Your task to perform on an android device: Open Android settings Image 0: 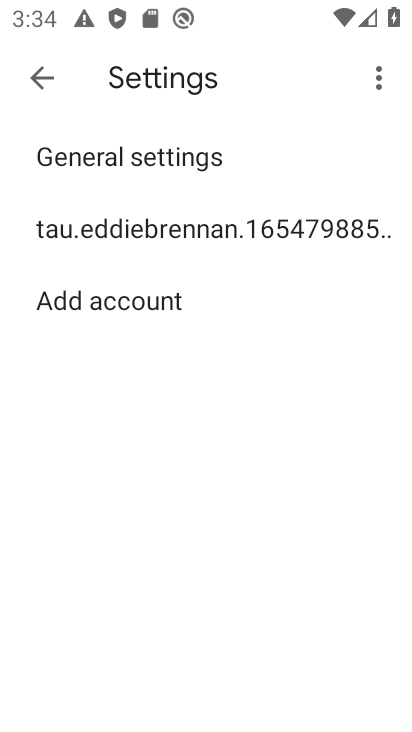
Step 0: click (42, 67)
Your task to perform on an android device: Open Android settings Image 1: 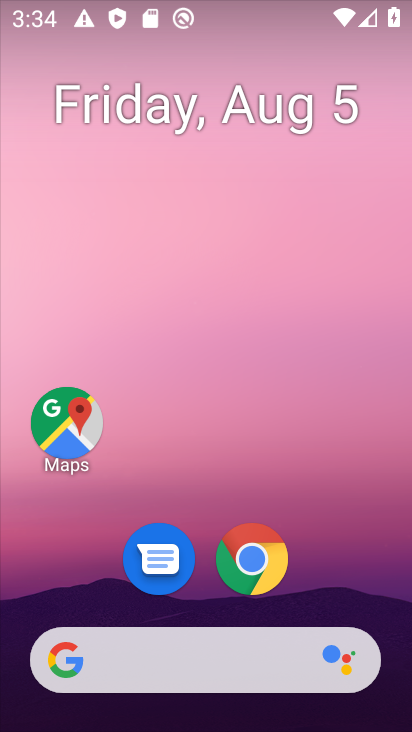
Step 1: drag from (247, 575) to (169, 174)
Your task to perform on an android device: Open Android settings Image 2: 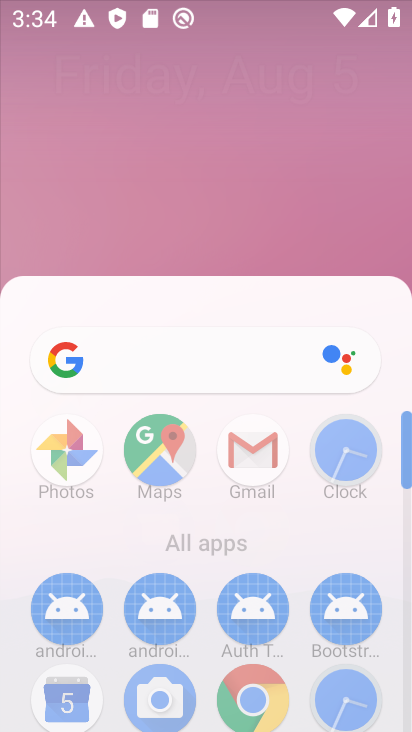
Step 2: drag from (194, 482) to (121, 25)
Your task to perform on an android device: Open Android settings Image 3: 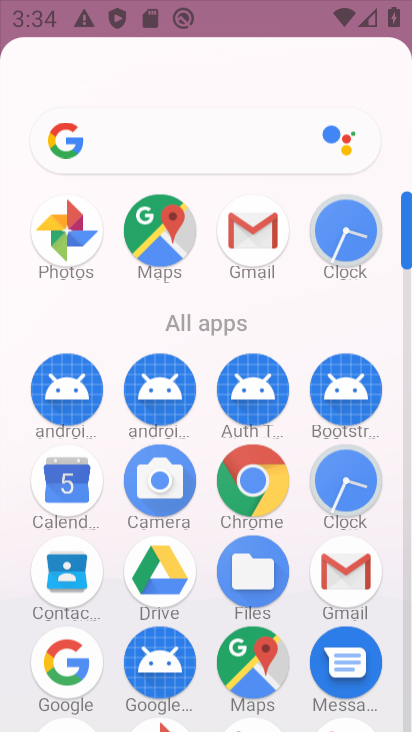
Step 3: drag from (225, 348) to (193, 186)
Your task to perform on an android device: Open Android settings Image 4: 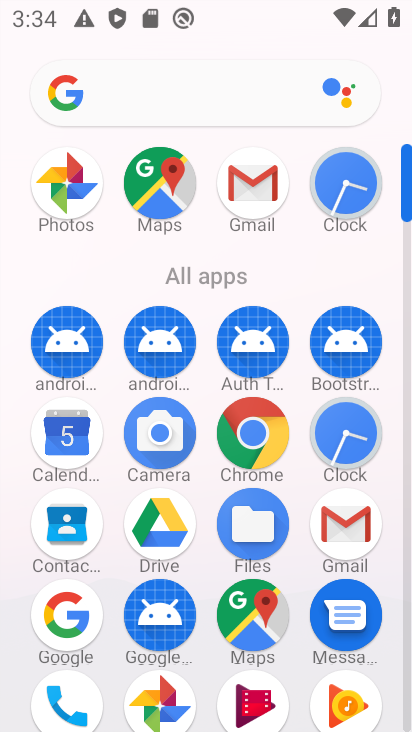
Step 4: drag from (203, 416) to (184, 168)
Your task to perform on an android device: Open Android settings Image 5: 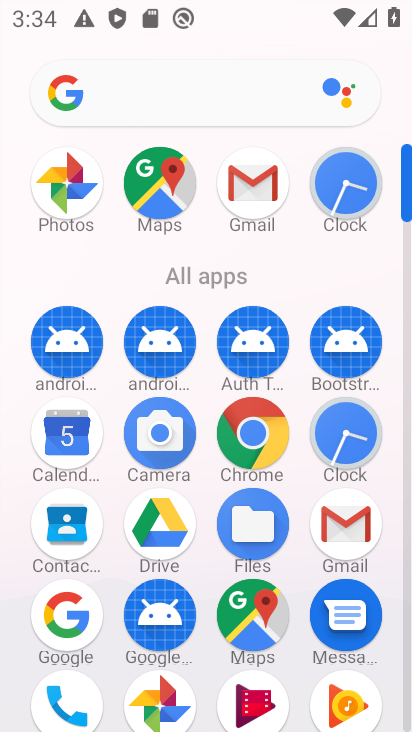
Step 5: drag from (207, 327) to (191, 174)
Your task to perform on an android device: Open Android settings Image 6: 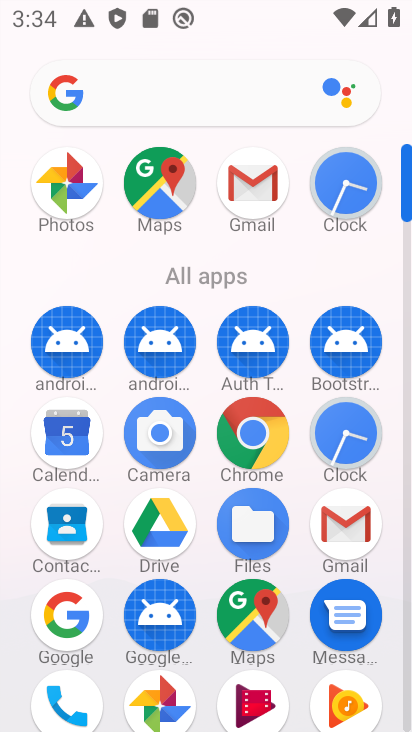
Step 6: drag from (183, 438) to (148, 205)
Your task to perform on an android device: Open Android settings Image 7: 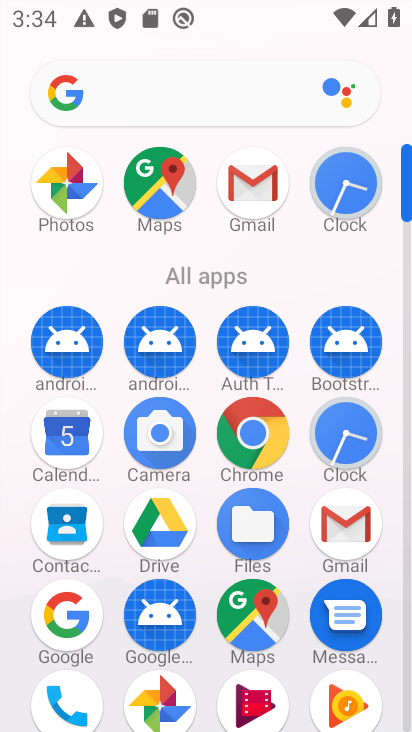
Step 7: drag from (225, 627) to (165, 251)
Your task to perform on an android device: Open Android settings Image 8: 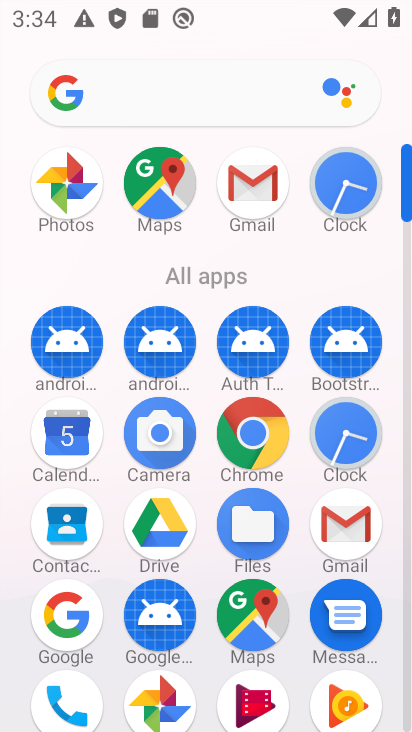
Step 8: drag from (201, 538) to (158, 191)
Your task to perform on an android device: Open Android settings Image 9: 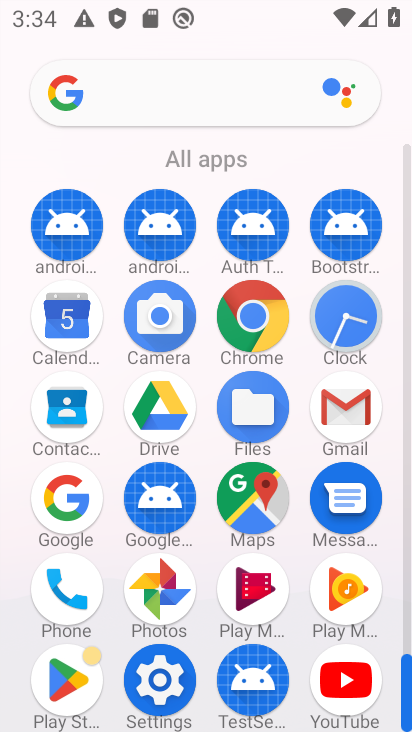
Step 9: drag from (219, 602) to (214, 244)
Your task to perform on an android device: Open Android settings Image 10: 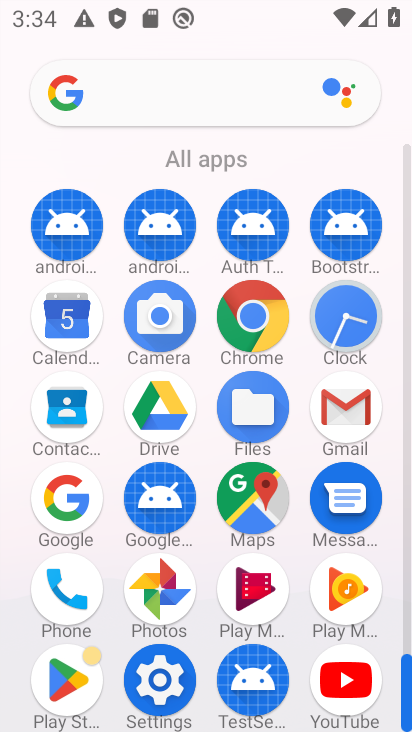
Step 10: click (162, 678)
Your task to perform on an android device: Open Android settings Image 11: 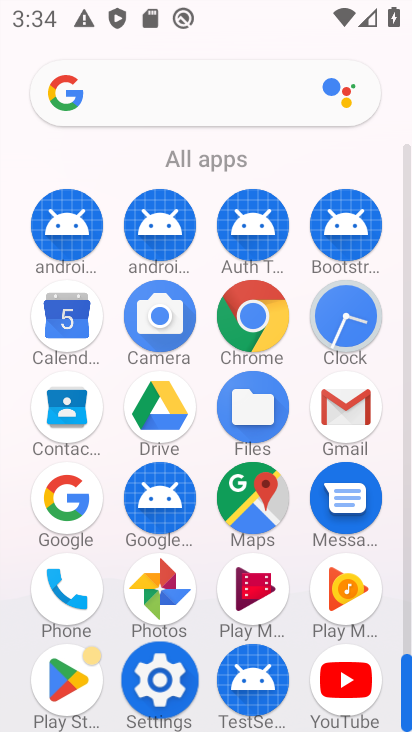
Step 11: click (162, 678)
Your task to perform on an android device: Open Android settings Image 12: 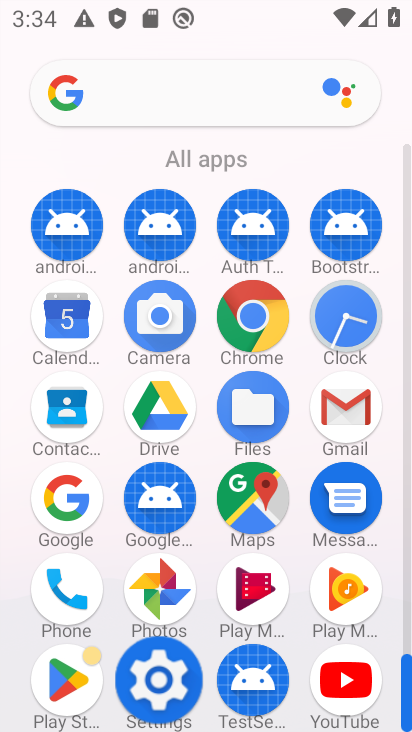
Step 12: click (170, 679)
Your task to perform on an android device: Open Android settings Image 13: 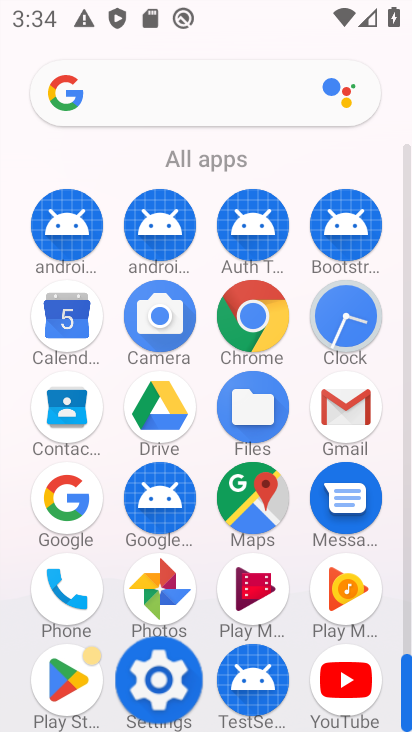
Step 13: click (170, 679)
Your task to perform on an android device: Open Android settings Image 14: 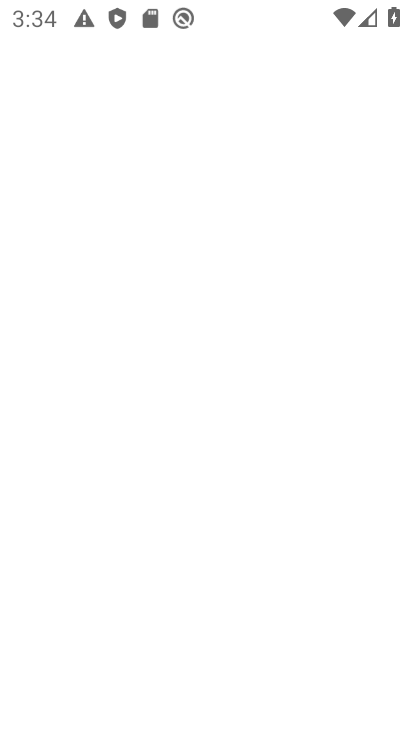
Step 14: click (167, 680)
Your task to perform on an android device: Open Android settings Image 15: 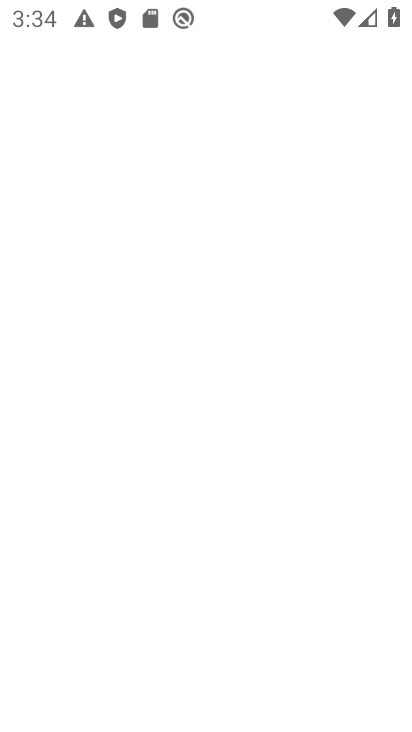
Step 15: click (157, 668)
Your task to perform on an android device: Open Android settings Image 16: 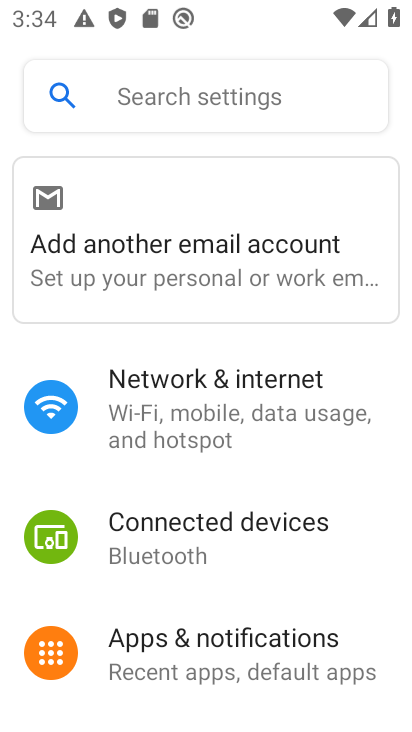
Step 16: drag from (188, 545) to (173, 296)
Your task to perform on an android device: Open Android settings Image 17: 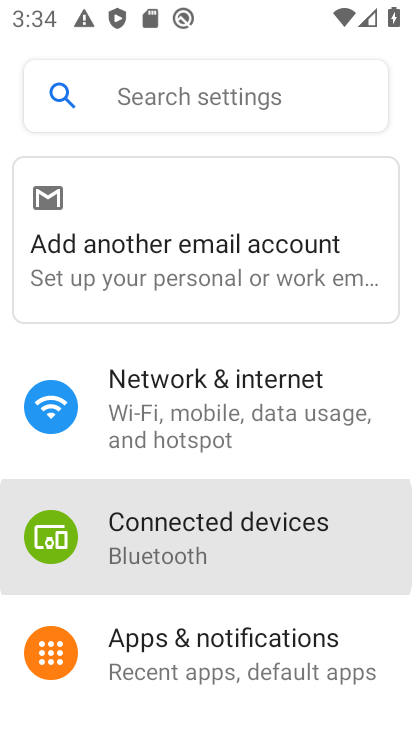
Step 17: drag from (221, 564) to (180, 351)
Your task to perform on an android device: Open Android settings Image 18: 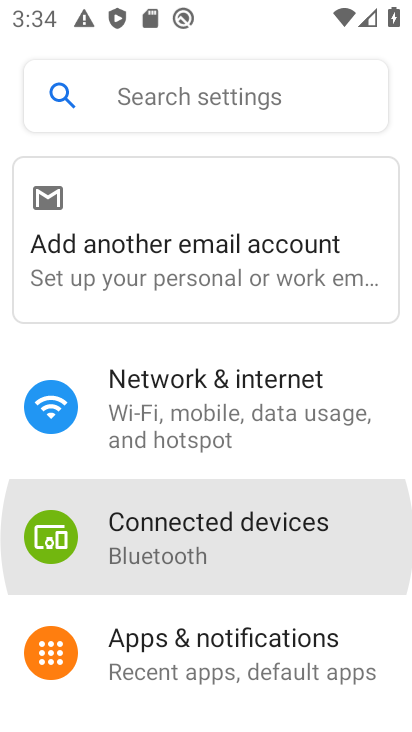
Step 18: drag from (200, 503) to (174, 272)
Your task to perform on an android device: Open Android settings Image 19: 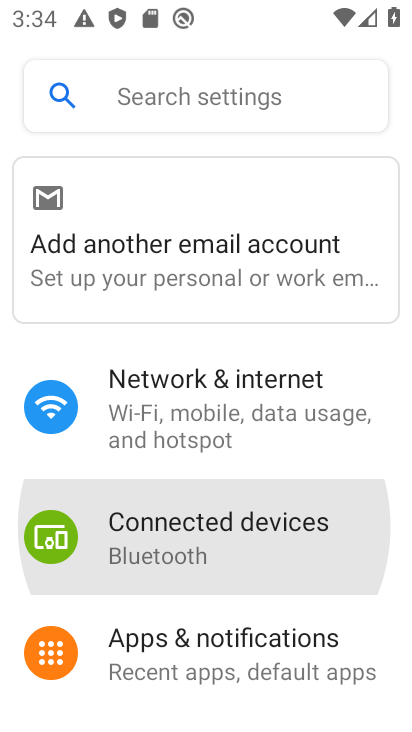
Step 19: drag from (165, 658) to (127, 411)
Your task to perform on an android device: Open Android settings Image 20: 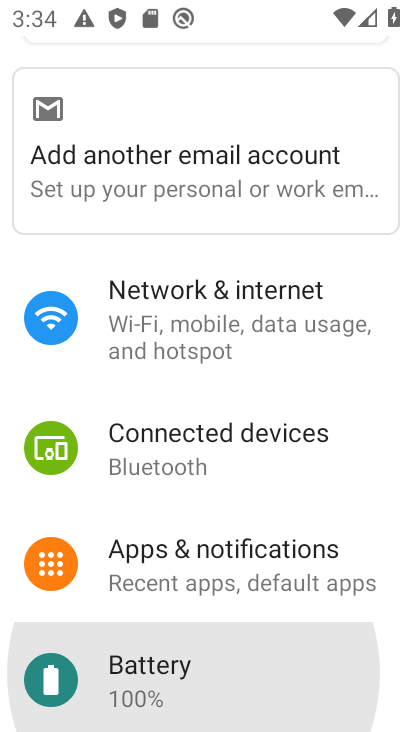
Step 20: drag from (171, 575) to (158, 351)
Your task to perform on an android device: Open Android settings Image 21: 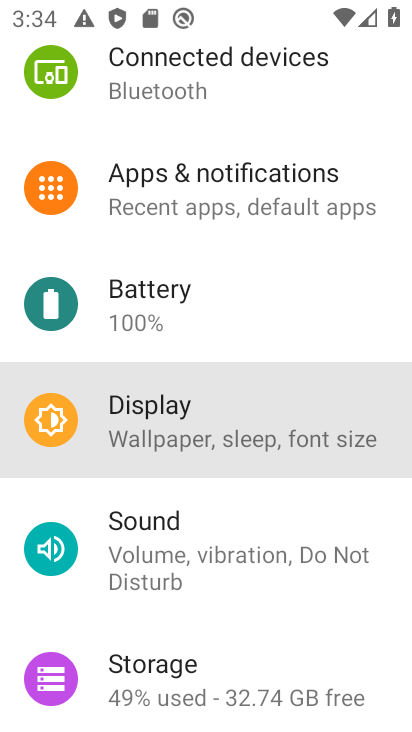
Step 21: drag from (191, 483) to (183, 336)
Your task to perform on an android device: Open Android settings Image 22: 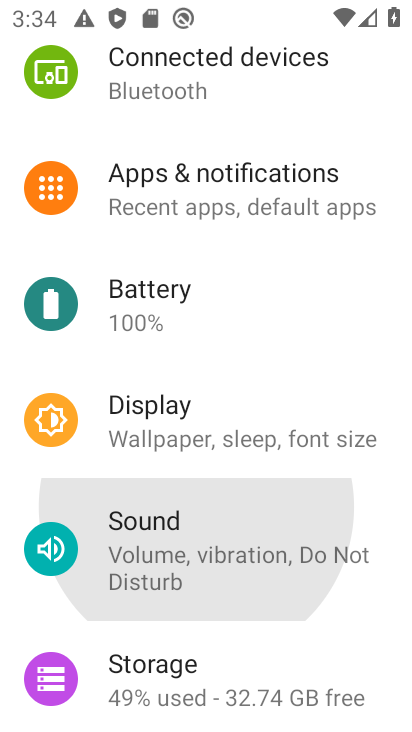
Step 22: drag from (147, 604) to (132, 285)
Your task to perform on an android device: Open Android settings Image 23: 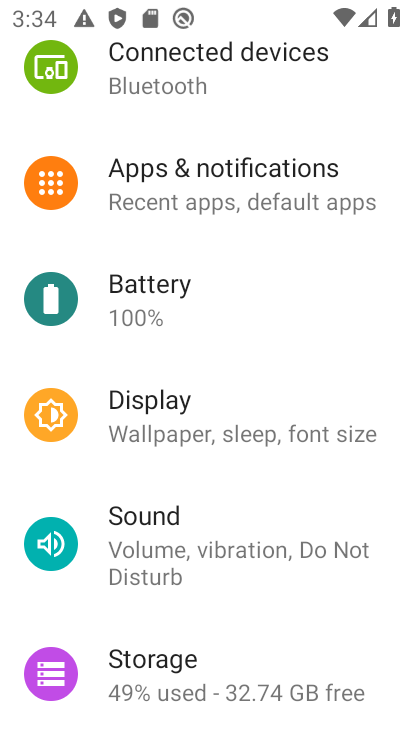
Step 23: drag from (179, 518) to (162, 236)
Your task to perform on an android device: Open Android settings Image 24: 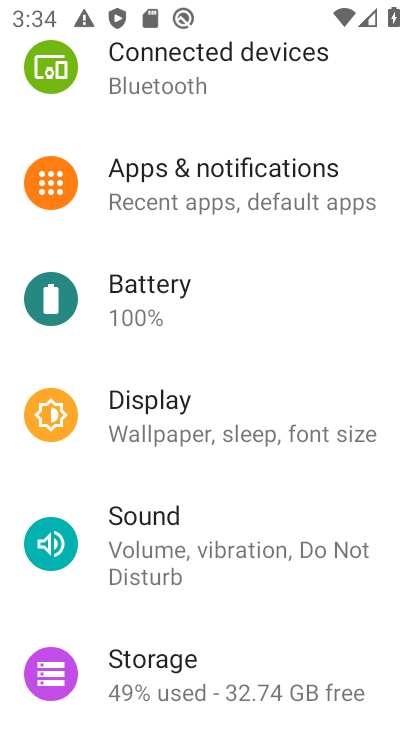
Step 24: drag from (221, 575) to (221, 342)
Your task to perform on an android device: Open Android settings Image 25: 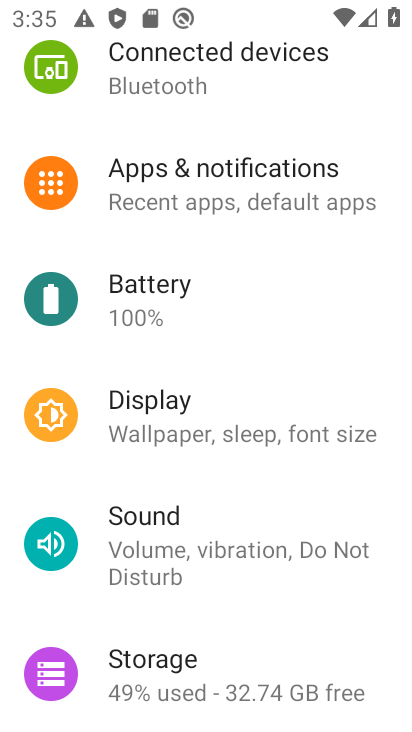
Step 25: click (229, 164)
Your task to perform on an android device: Open Android settings Image 26: 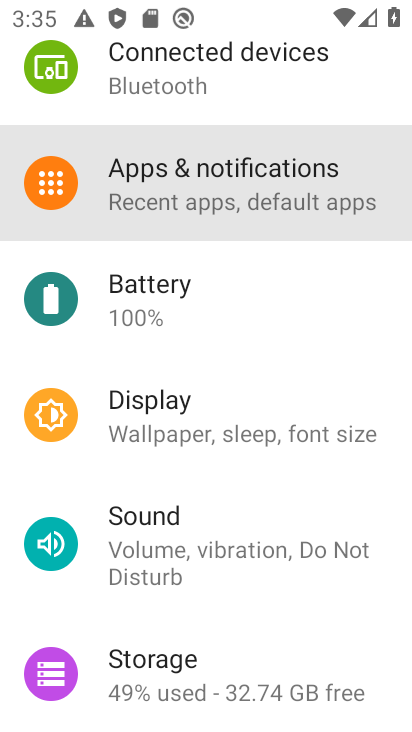
Step 26: drag from (243, 513) to (156, 152)
Your task to perform on an android device: Open Android settings Image 27: 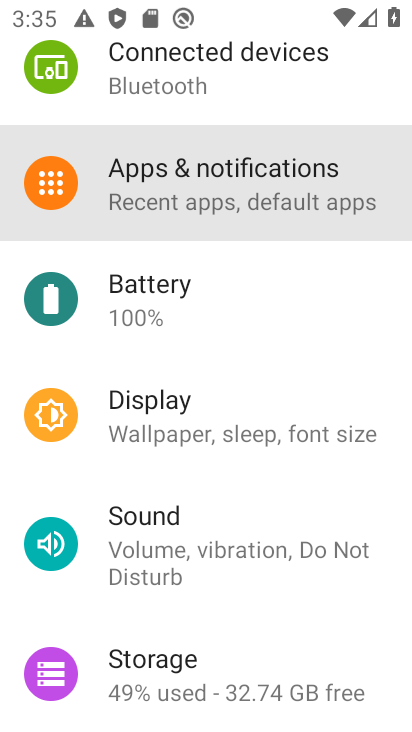
Step 27: drag from (212, 291) to (190, 114)
Your task to perform on an android device: Open Android settings Image 28: 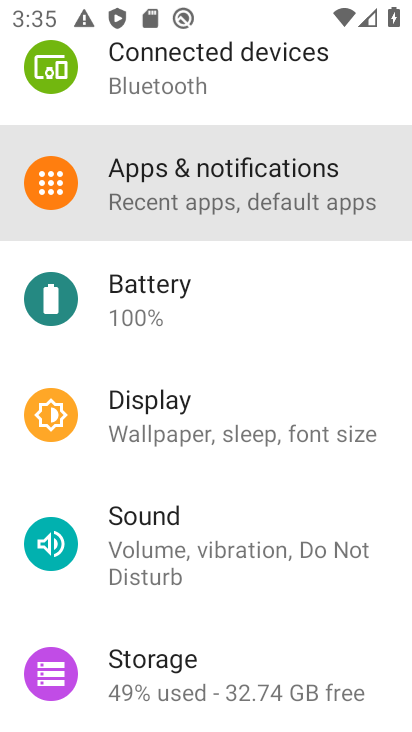
Step 28: drag from (253, 572) to (235, 165)
Your task to perform on an android device: Open Android settings Image 29: 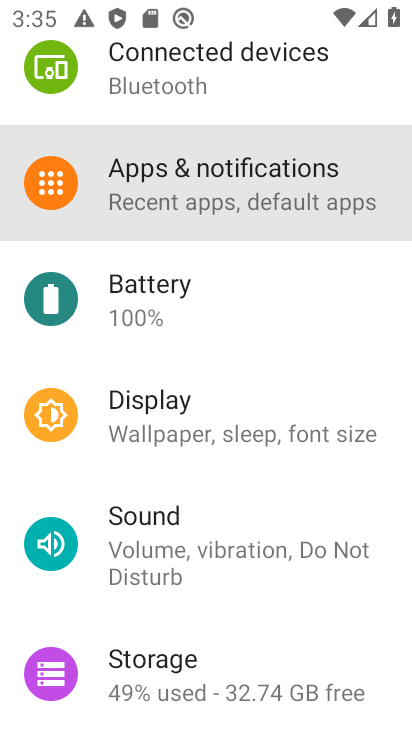
Step 29: drag from (202, 589) to (185, 34)
Your task to perform on an android device: Open Android settings Image 30: 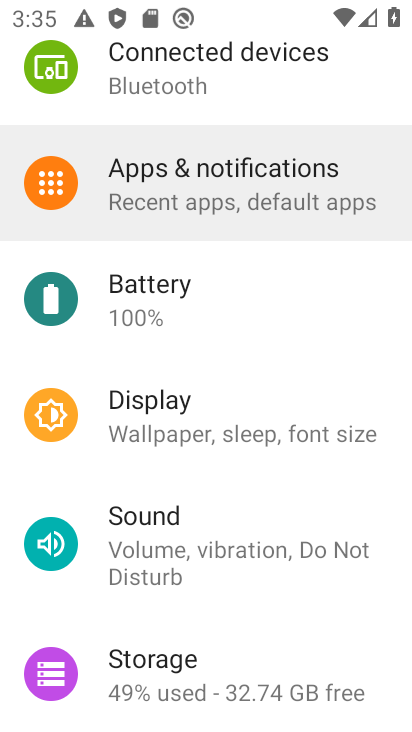
Step 30: drag from (245, 591) to (242, 199)
Your task to perform on an android device: Open Android settings Image 31: 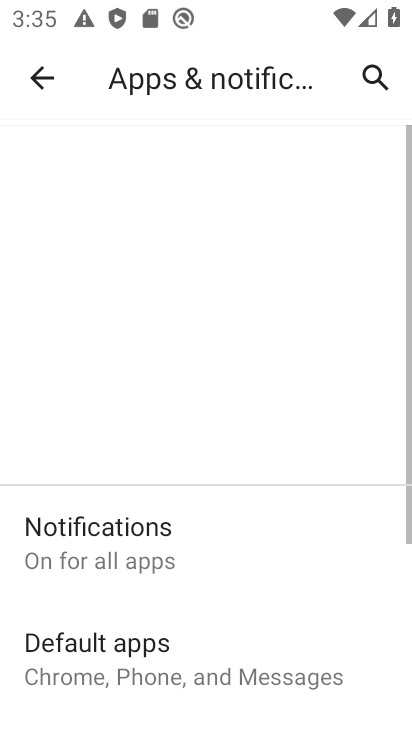
Step 31: click (43, 77)
Your task to perform on an android device: Open Android settings Image 32: 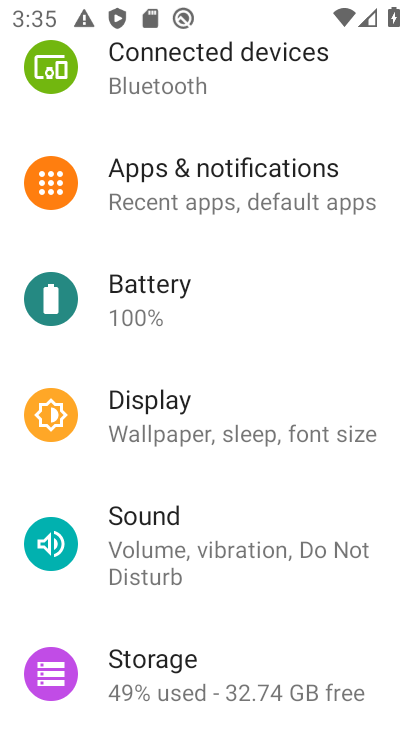
Step 32: task complete